Your task to perform on an android device: turn on data saver in the chrome app Image 0: 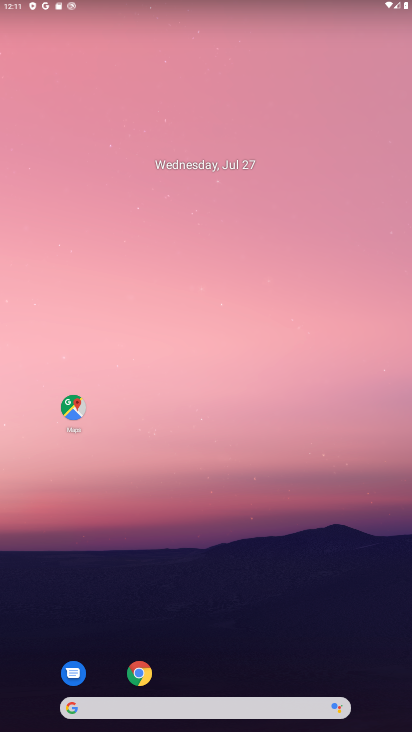
Step 0: click (135, 675)
Your task to perform on an android device: turn on data saver in the chrome app Image 1: 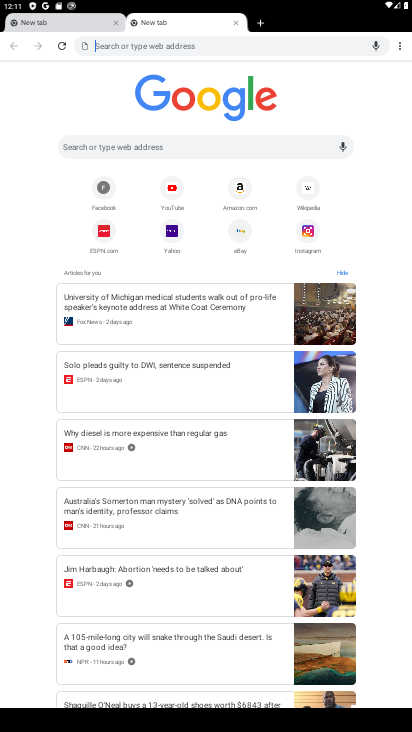
Step 1: drag from (399, 50) to (299, 218)
Your task to perform on an android device: turn on data saver in the chrome app Image 2: 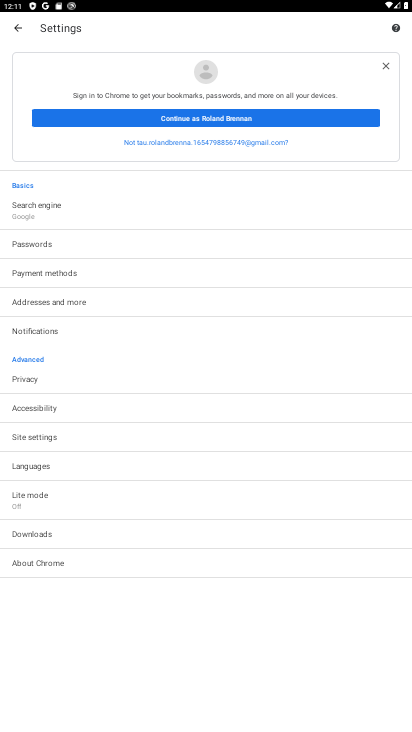
Step 2: click (29, 501)
Your task to perform on an android device: turn on data saver in the chrome app Image 3: 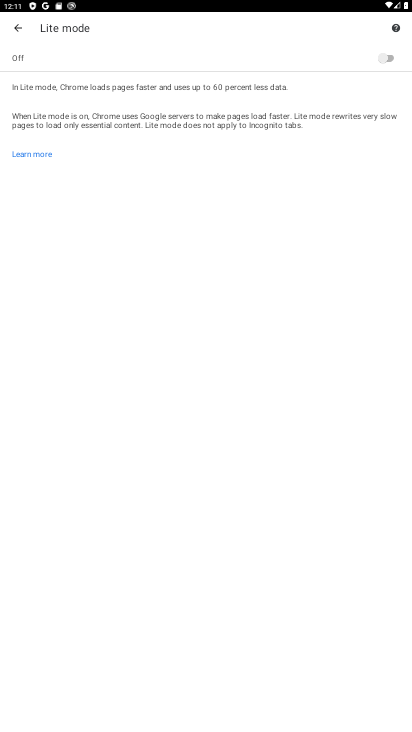
Step 3: click (382, 59)
Your task to perform on an android device: turn on data saver in the chrome app Image 4: 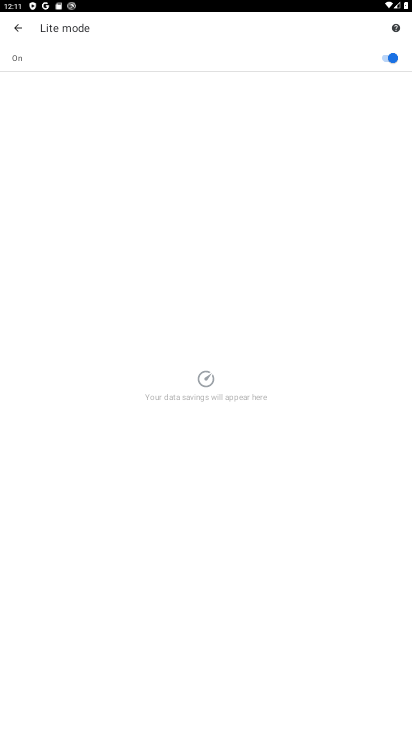
Step 4: task complete